Your task to perform on an android device: turn notification dots on Image 0: 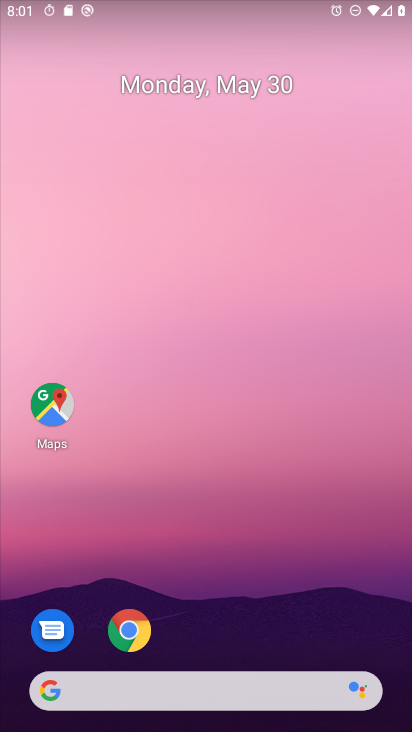
Step 0: drag from (289, 562) to (279, 246)
Your task to perform on an android device: turn notification dots on Image 1: 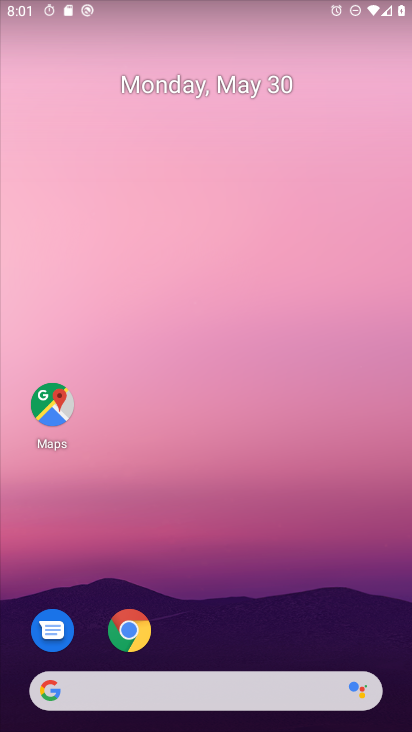
Step 1: drag from (325, 635) to (330, 14)
Your task to perform on an android device: turn notification dots on Image 2: 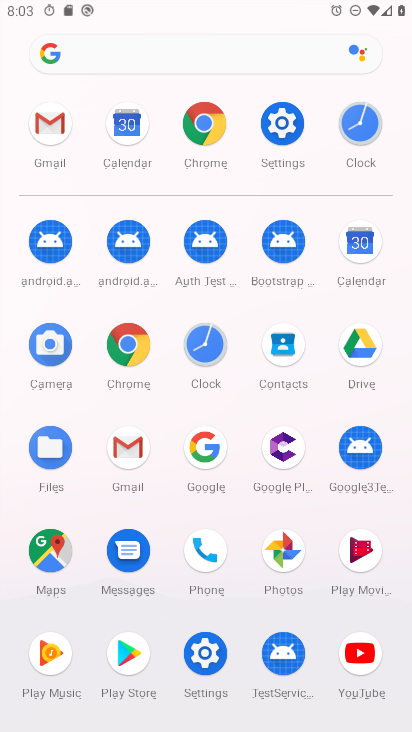
Step 2: click (205, 649)
Your task to perform on an android device: turn notification dots on Image 3: 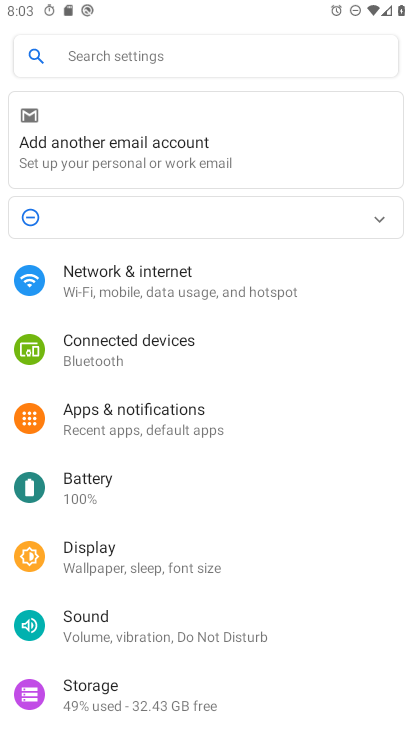
Step 3: click (158, 434)
Your task to perform on an android device: turn notification dots on Image 4: 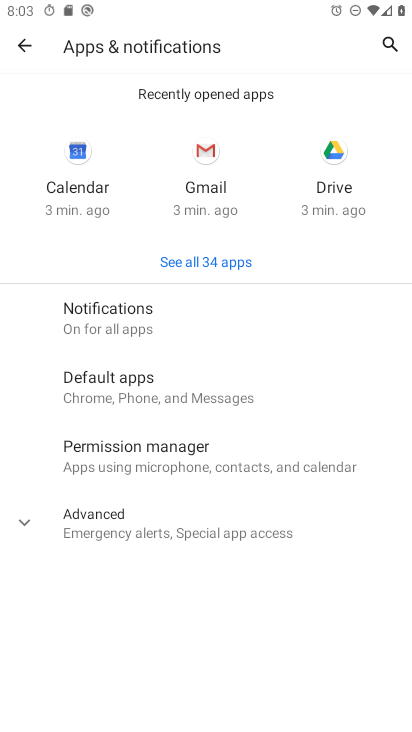
Step 4: click (165, 308)
Your task to perform on an android device: turn notification dots on Image 5: 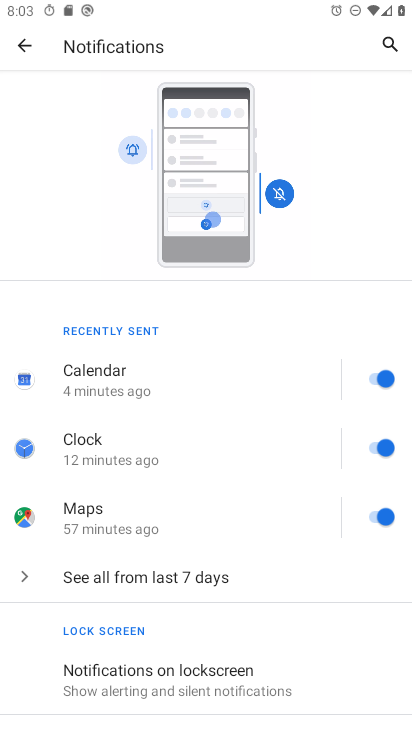
Step 5: drag from (174, 679) to (136, 334)
Your task to perform on an android device: turn notification dots on Image 6: 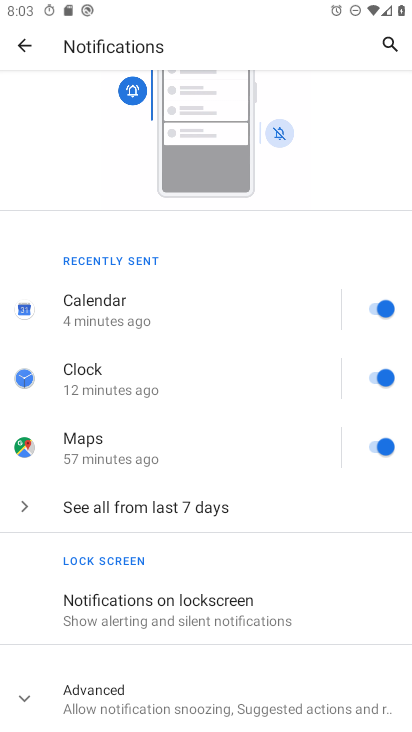
Step 6: click (177, 695)
Your task to perform on an android device: turn notification dots on Image 7: 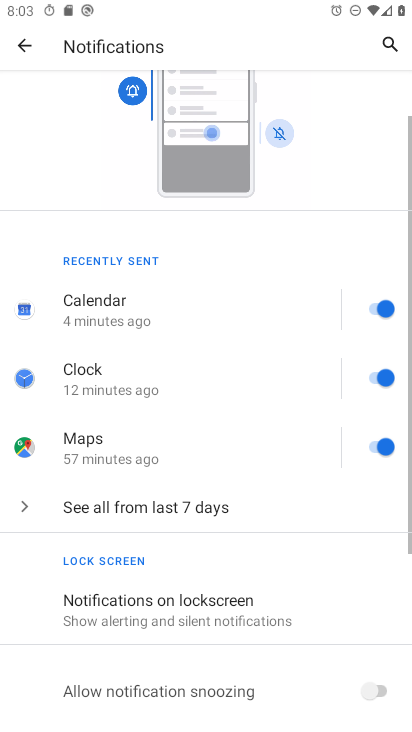
Step 7: drag from (177, 695) to (105, 272)
Your task to perform on an android device: turn notification dots on Image 8: 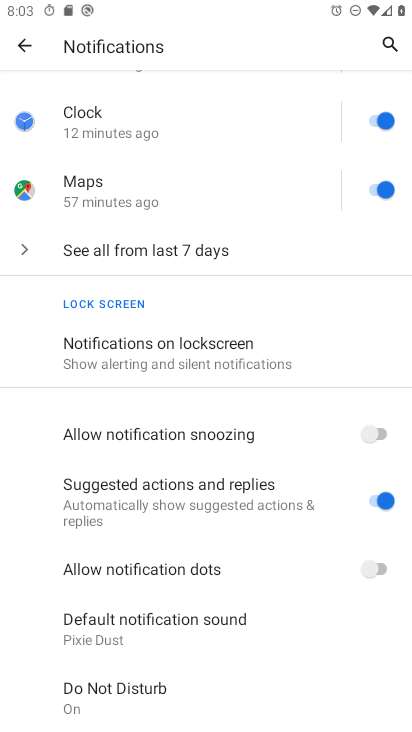
Step 8: click (353, 584)
Your task to perform on an android device: turn notification dots on Image 9: 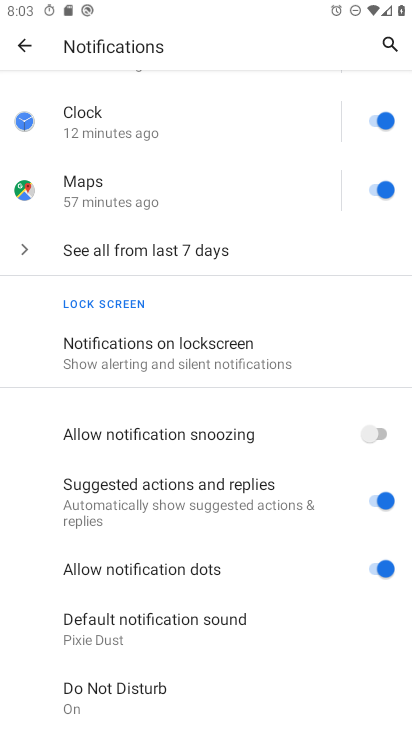
Step 9: task complete